Your task to perform on an android device: add a contact Image 0: 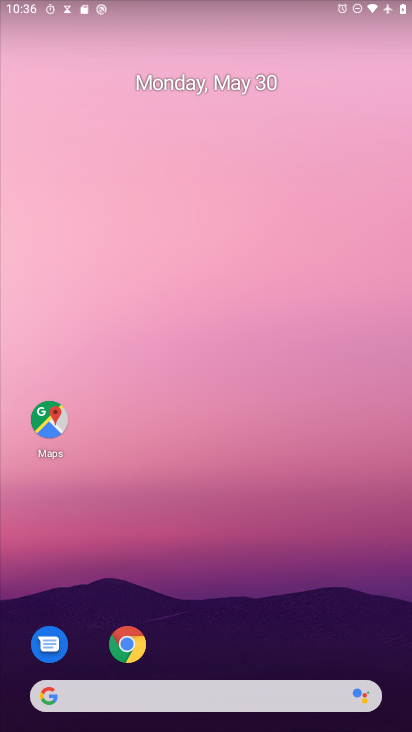
Step 0: drag from (242, 627) to (272, 30)
Your task to perform on an android device: add a contact Image 1: 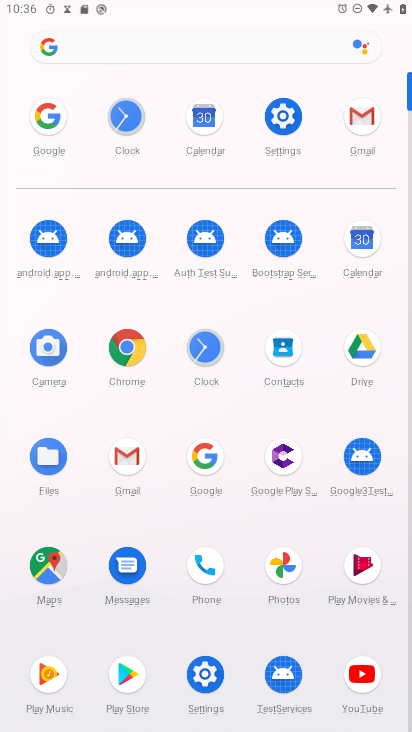
Step 1: click (282, 350)
Your task to perform on an android device: add a contact Image 2: 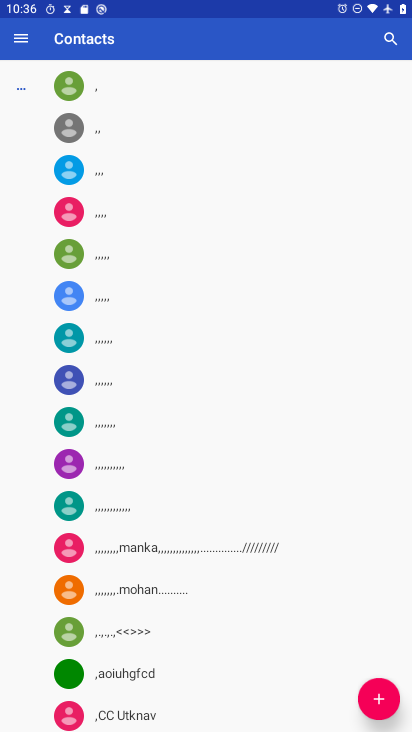
Step 2: click (377, 697)
Your task to perform on an android device: add a contact Image 3: 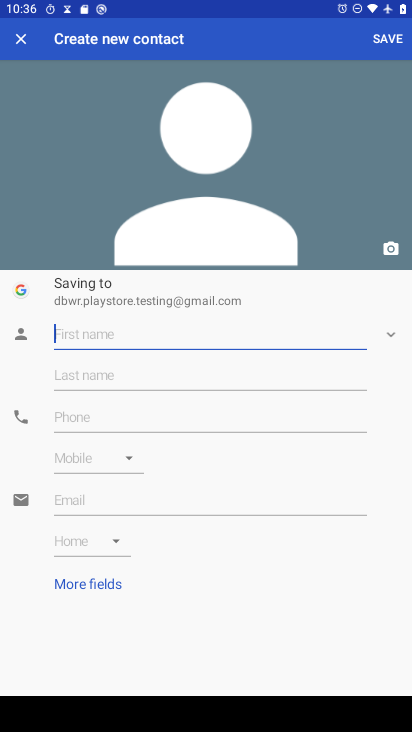
Step 3: type "jdnnb"
Your task to perform on an android device: add a contact Image 4: 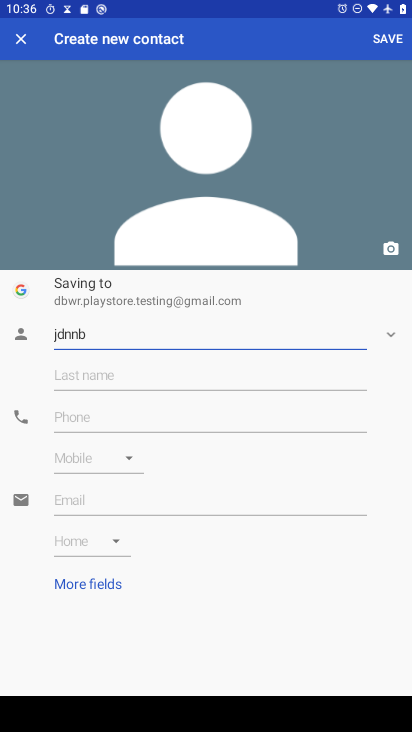
Step 4: click (385, 43)
Your task to perform on an android device: add a contact Image 5: 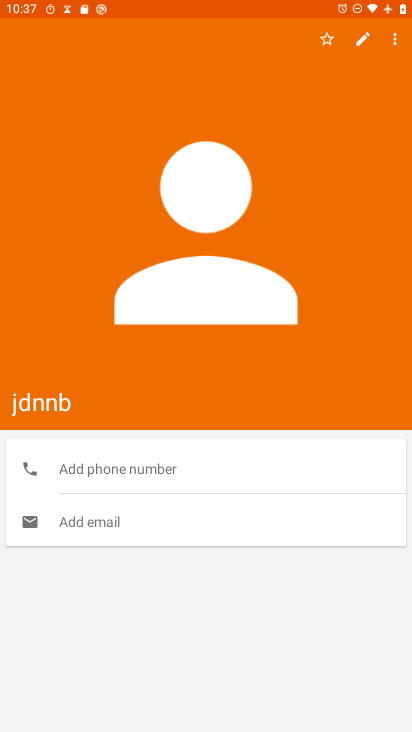
Step 5: task complete